Your task to perform on an android device: Open settings on Google Maps Image 0: 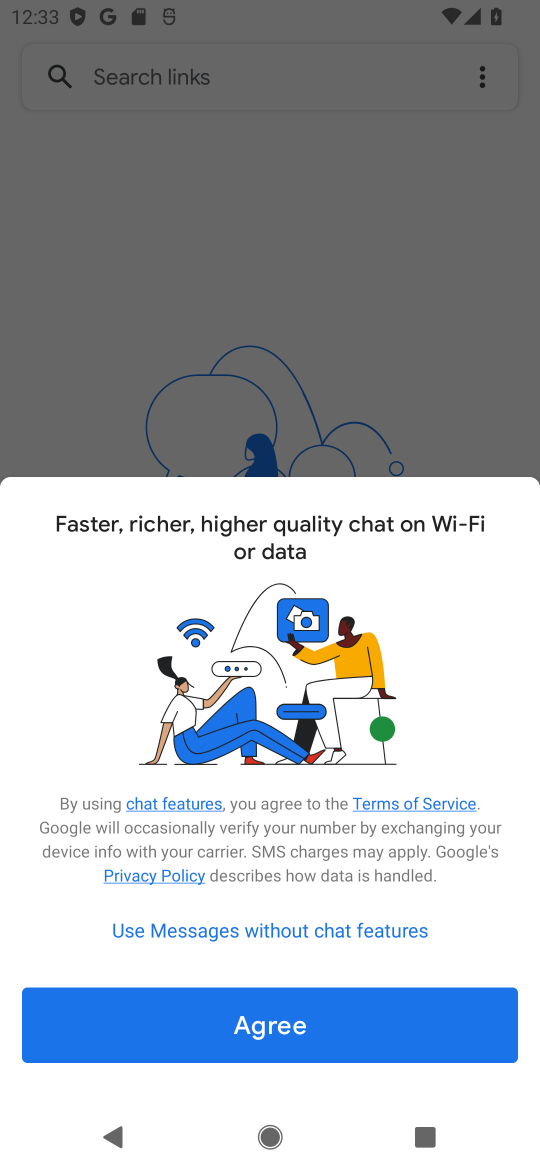
Step 0: press home button
Your task to perform on an android device: Open settings on Google Maps Image 1: 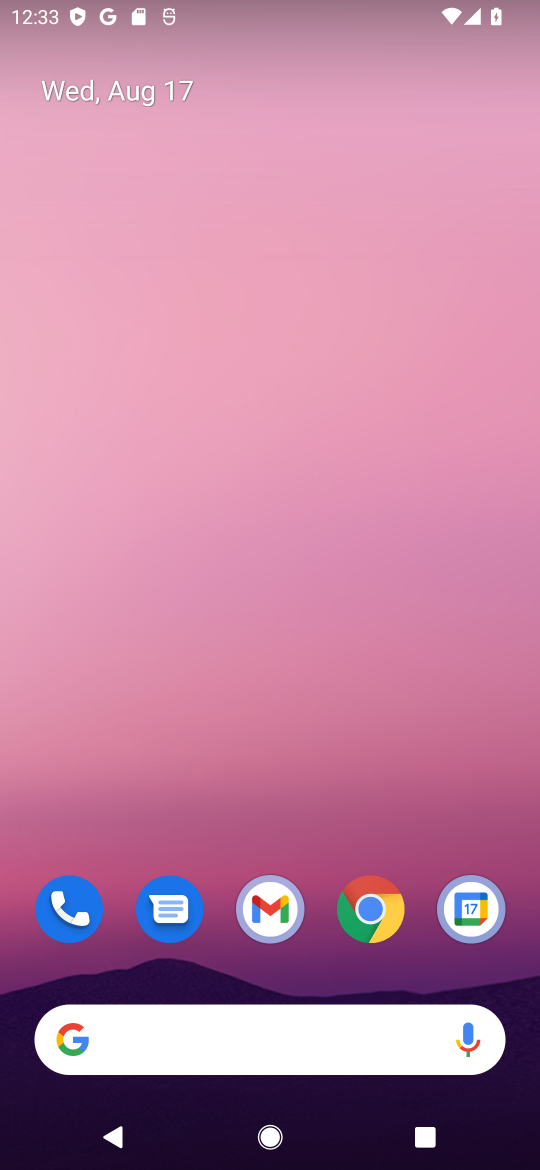
Step 1: drag from (334, 812) to (321, 17)
Your task to perform on an android device: Open settings on Google Maps Image 2: 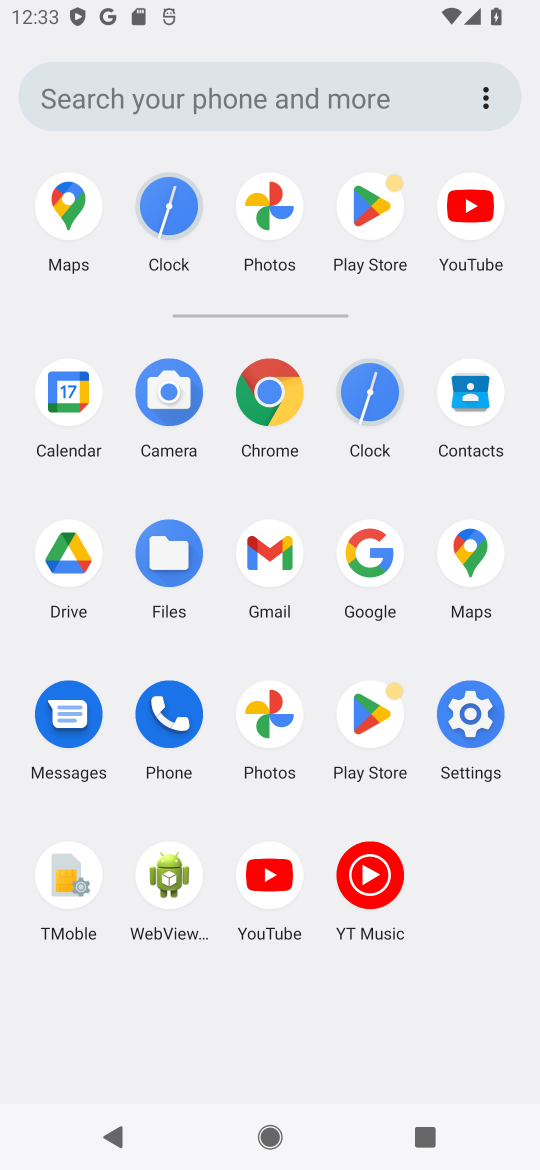
Step 2: click (64, 198)
Your task to perform on an android device: Open settings on Google Maps Image 3: 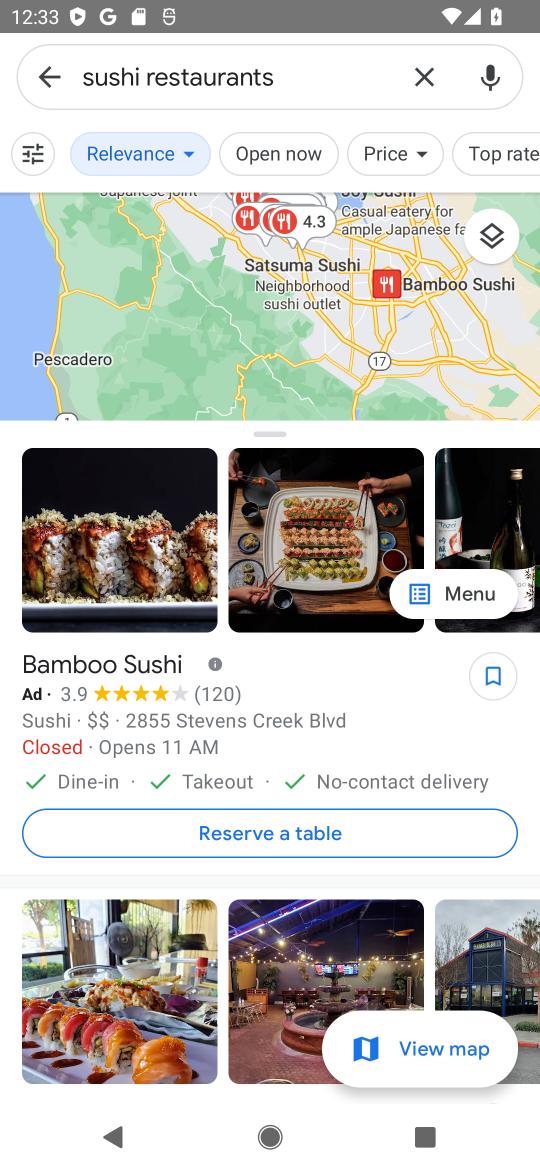
Step 3: click (38, 66)
Your task to perform on an android device: Open settings on Google Maps Image 4: 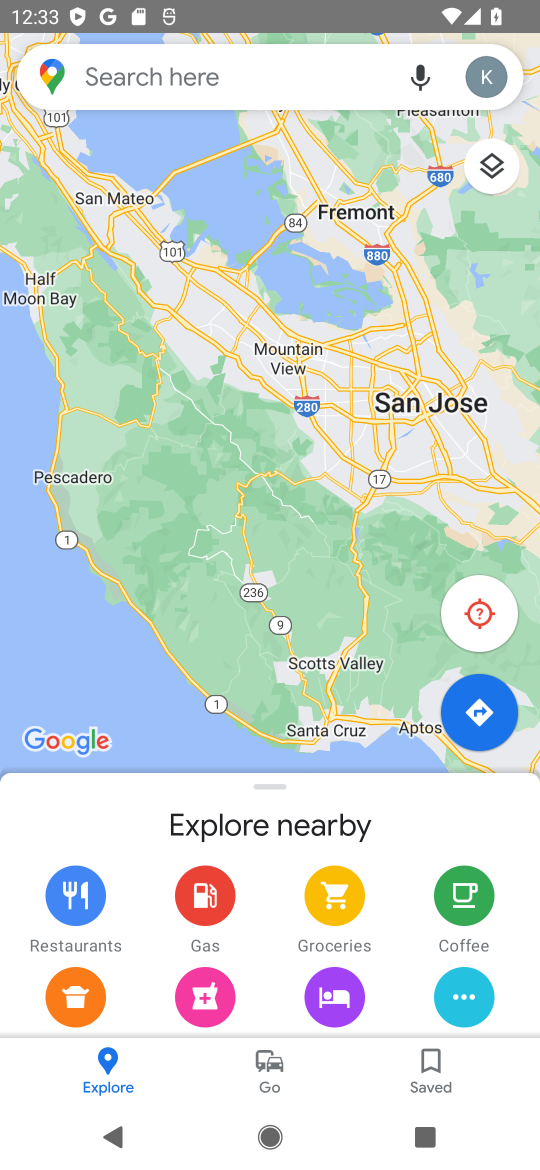
Step 4: click (491, 77)
Your task to perform on an android device: Open settings on Google Maps Image 5: 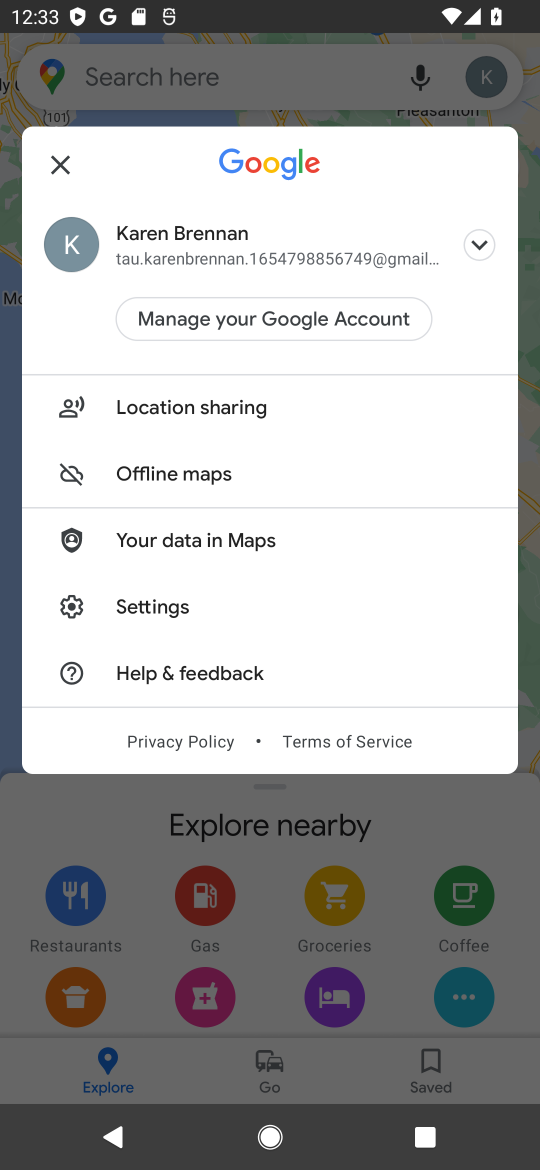
Step 5: click (162, 599)
Your task to perform on an android device: Open settings on Google Maps Image 6: 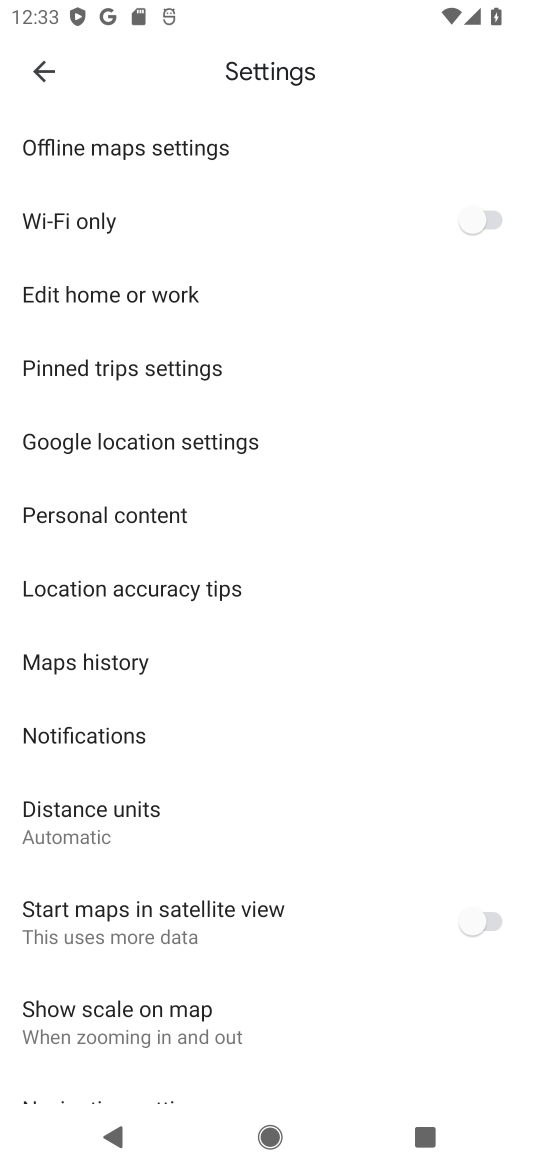
Step 6: task complete